Your task to perform on an android device: turn on the 24-hour format for clock Image 0: 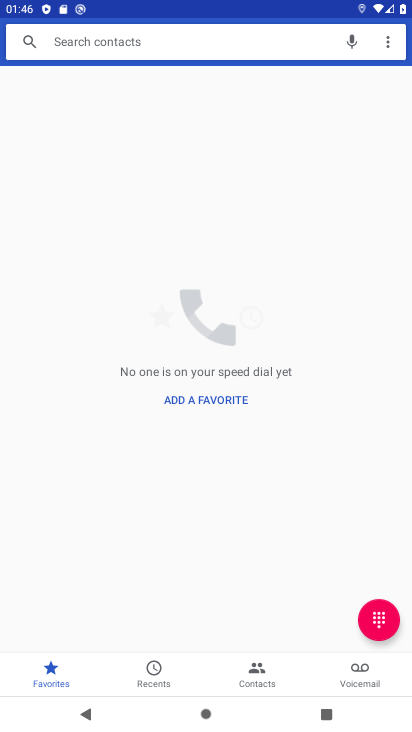
Step 0: press home button
Your task to perform on an android device: turn on the 24-hour format for clock Image 1: 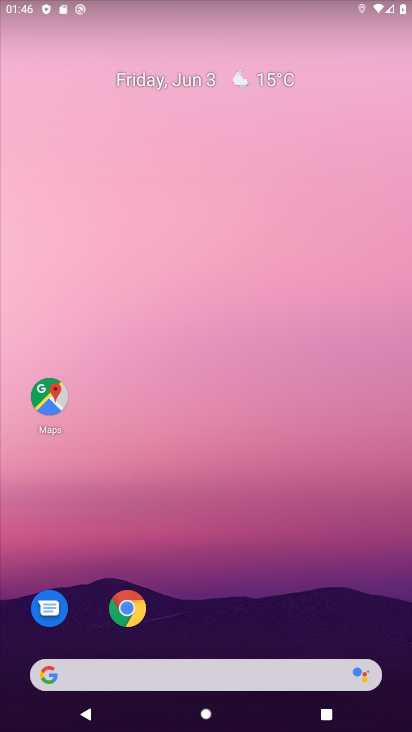
Step 1: drag from (274, 576) to (154, 146)
Your task to perform on an android device: turn on the 24-hour format for clock Image 2: 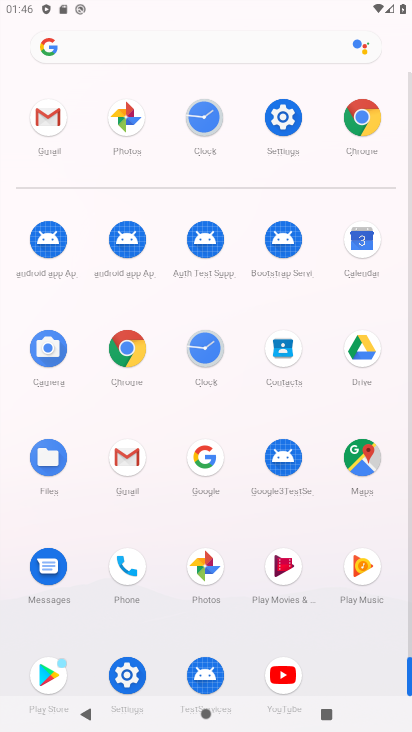
Step 2: click (212, 340)
Your task to perform on an android device: turn on the 24-hour format for clock Image 3: 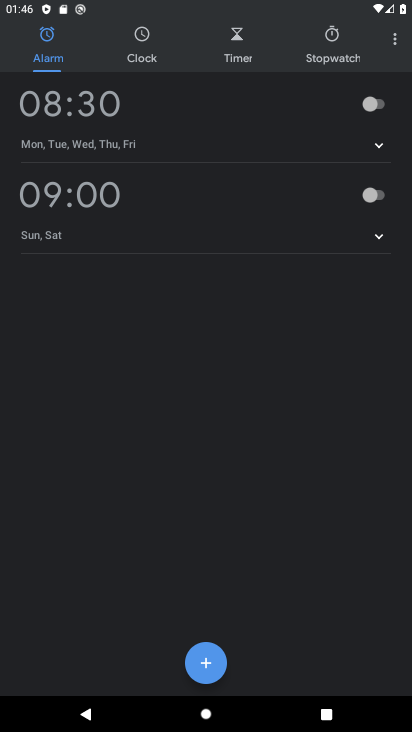
Step 3: drag from (398, 39) to (304, 68)
Your task to perform on an android device: turn on the 24-hour format for clock Image 4: 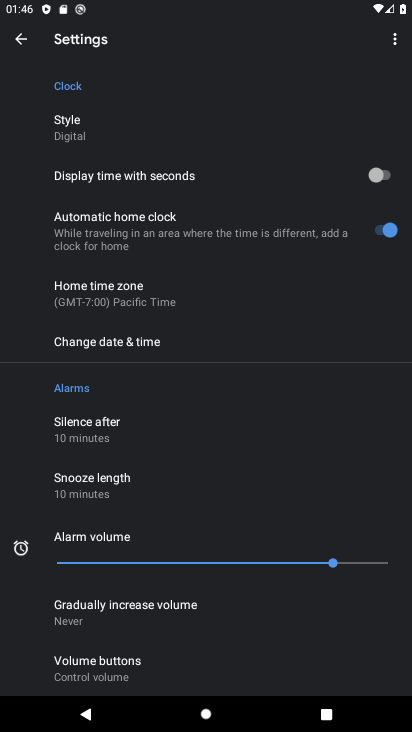
Step 4: click (115, 339)
Your task to perform on an android device: turn on the 24-hour format for clock Image 5: 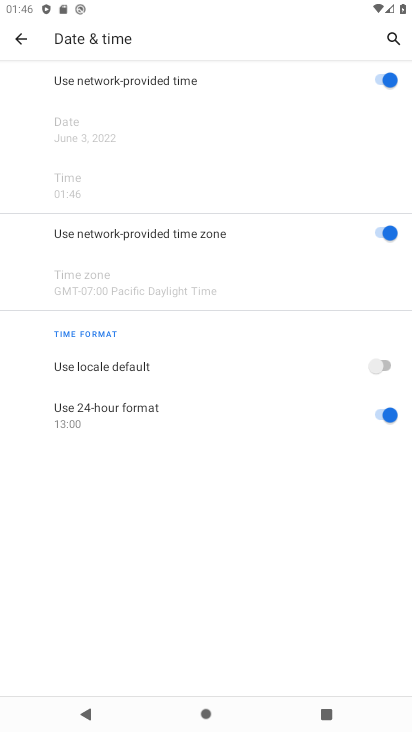
Step 5: task complete